Your task to perform on an android device: turn on airplane mode Image 0: 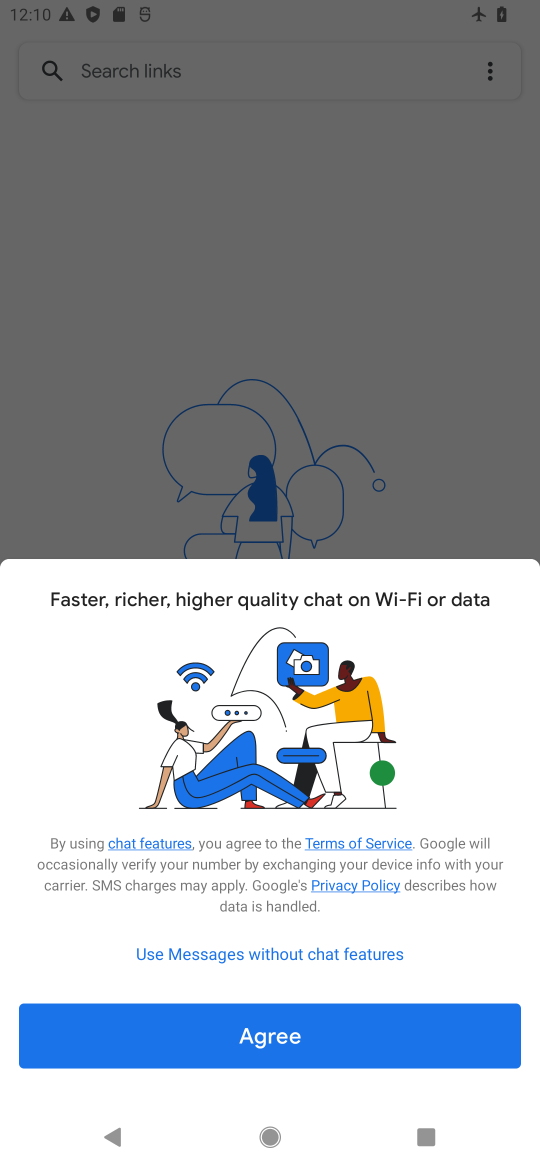
Step 0: press home button
Your task to perform on an android device: turn on airplane mode Image 1: 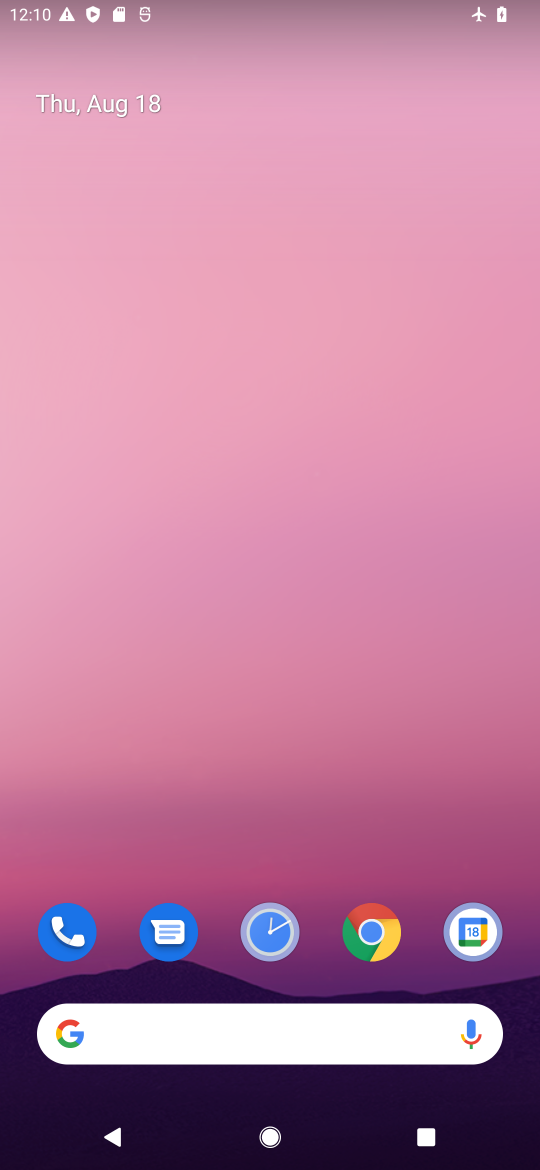
Step 1: drag from (325, 970) to (229, 205)
Your task to perform on an android device: turn on airplane mode Image 2: 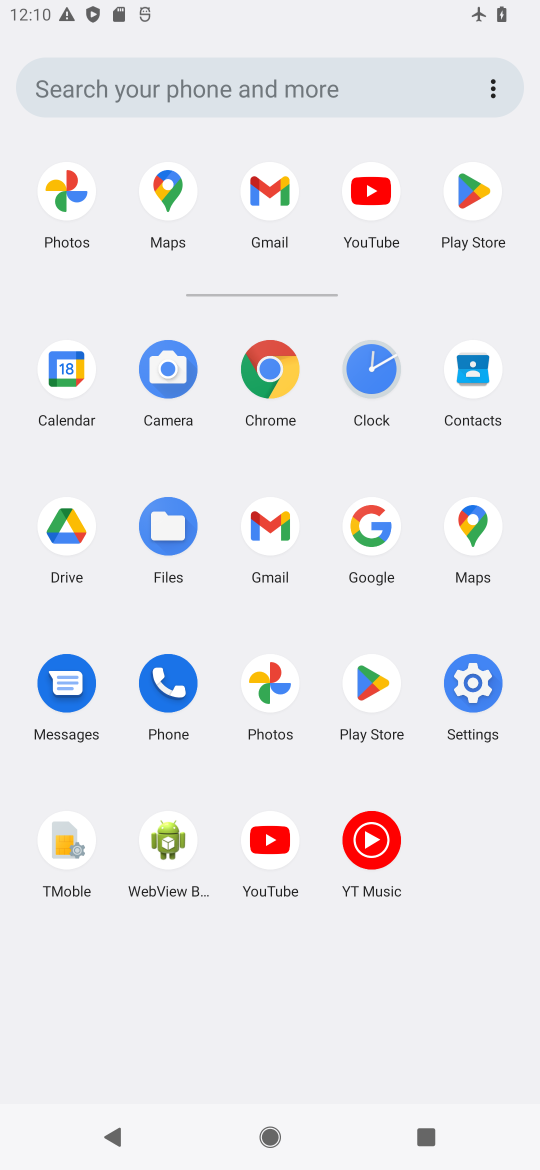
Step 2: click (478, 677)
Your task to perform on an android device: turn on airplane mode Image 3: 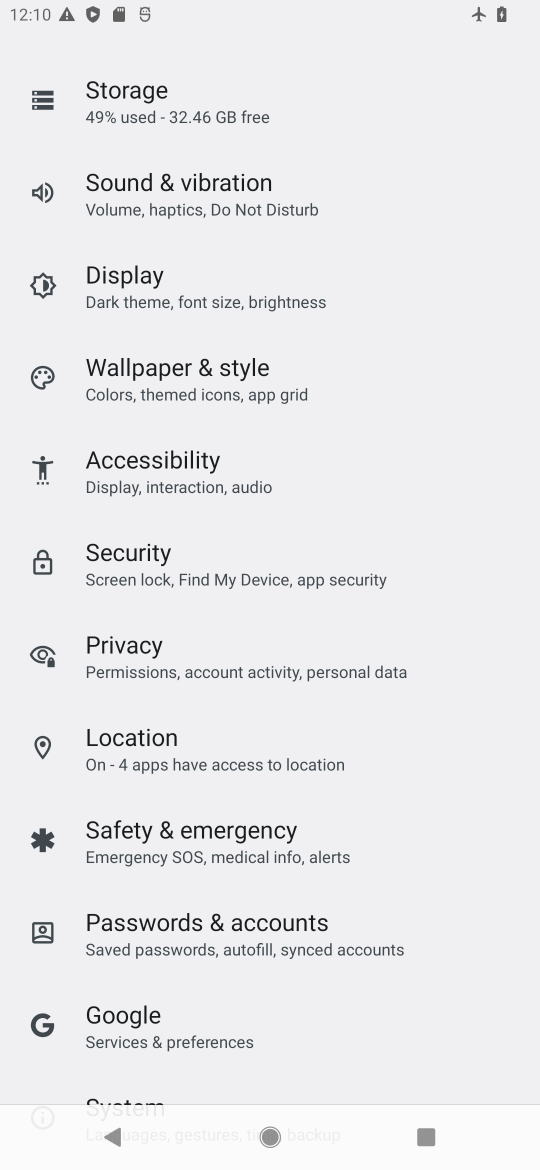
Step 3: drag from (339, 239) to (144, 862)
Your task to perform on an android device: turn on airplane mode Image 4: 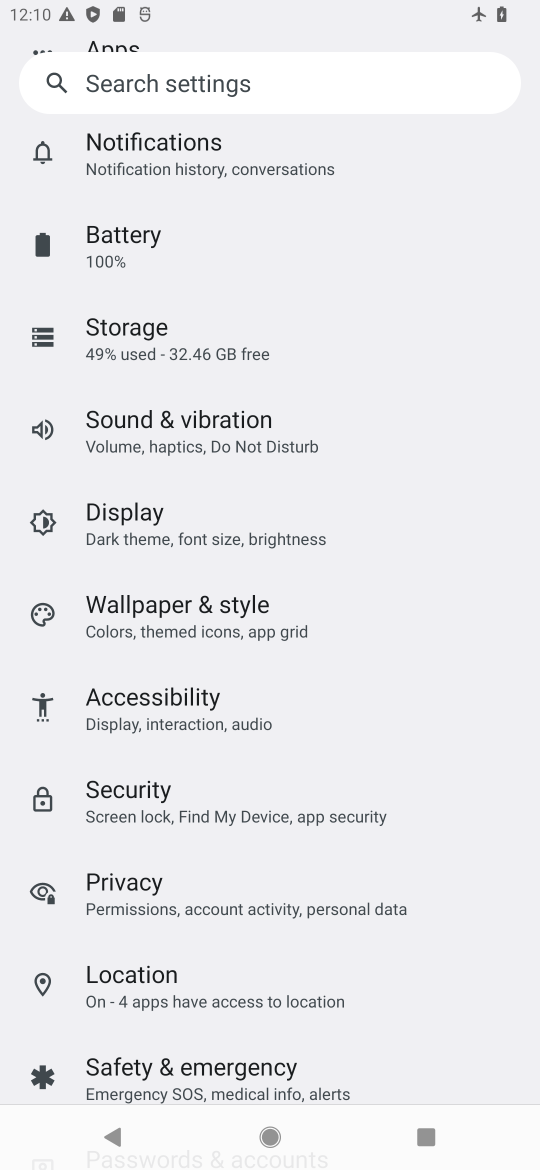
Step 4: drag from (267, 276) to (279, 733)
Your task to perform on an android device: turn on airplane mode Image 5: 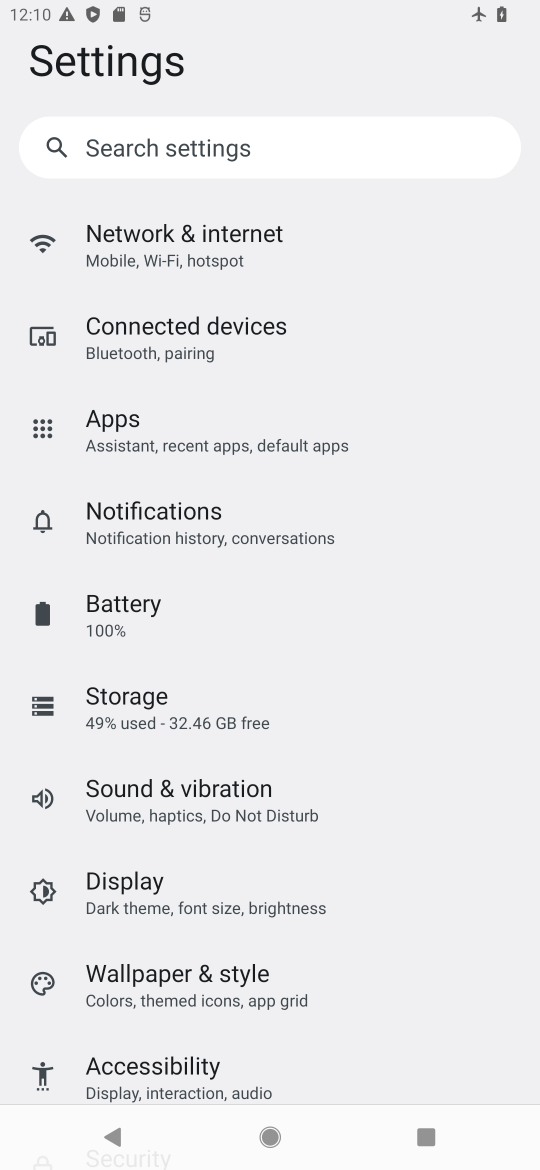
Step 5: click (192, 228)
Your task to perform on an android device: turn on airplane mode Image 6: 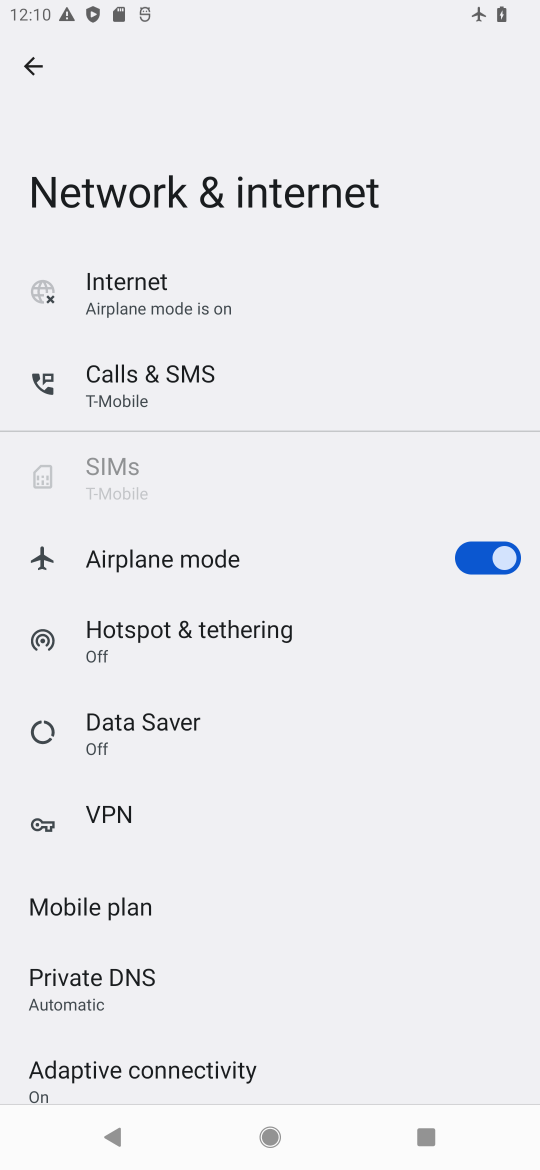
Step 6: task complete